Your task to perform on an android device: open chrome and create a bookmark for the current page Image 0: 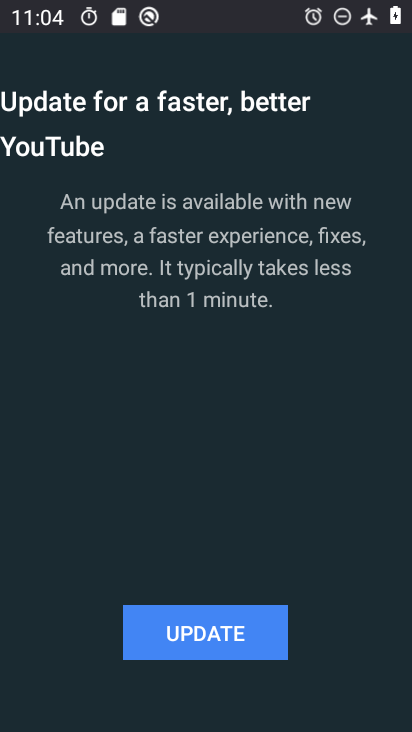
Step 0: press home button
Your task to perform on an android device: open chrome and create a bookmark for the current page Image 1: 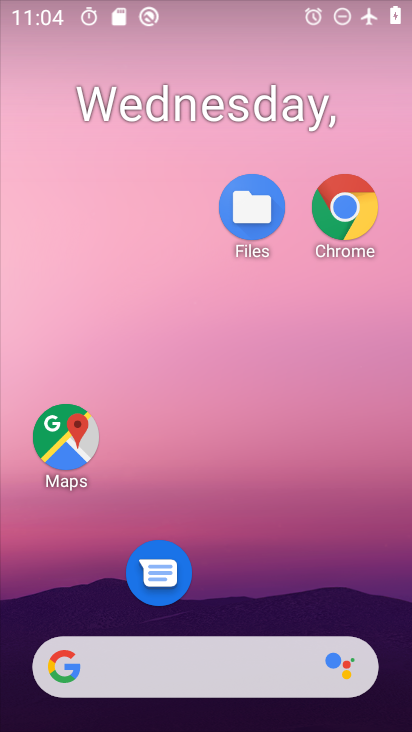
Step 1: drag from (241, 697) to (340, 204)
Your task to perform on an android device: open chrome and create a bookmark for the current page Image 2: 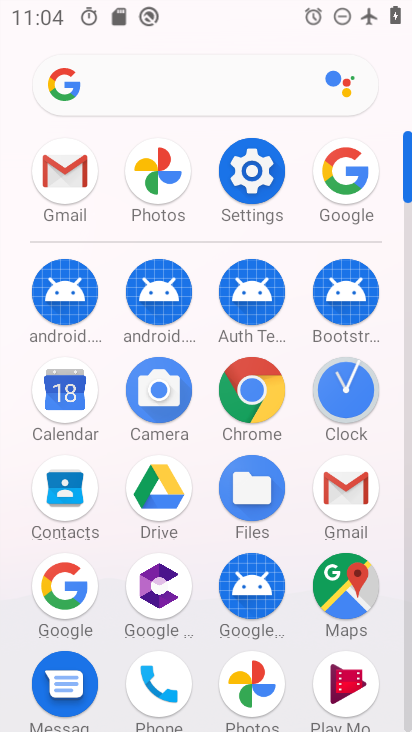
Step 2: click (265, 410)
Your task to perform on an android device: open chrome and create a bookmark for the current page Image 3: 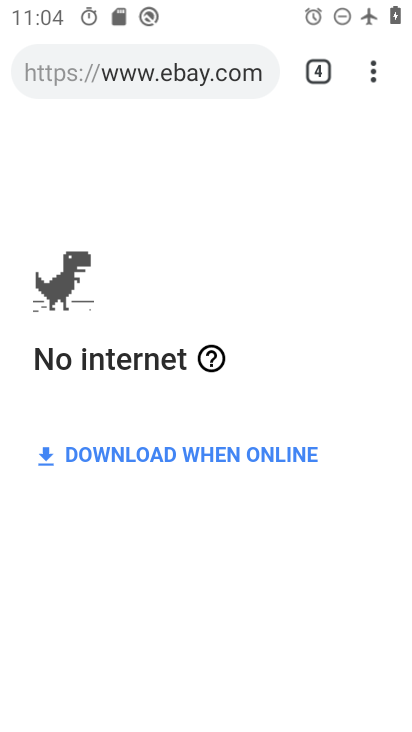
Step 3: click (316, 82)
Your task to perform on an android device: open chrome and create a bookmark for the current page Image 4: 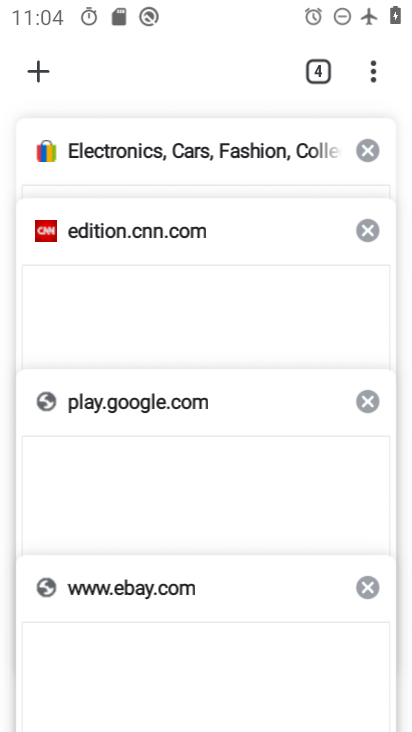
Step 4: click (178, 642)
Your task to perform on an android device: open chrome and create a bookmark for the current page Image 5: 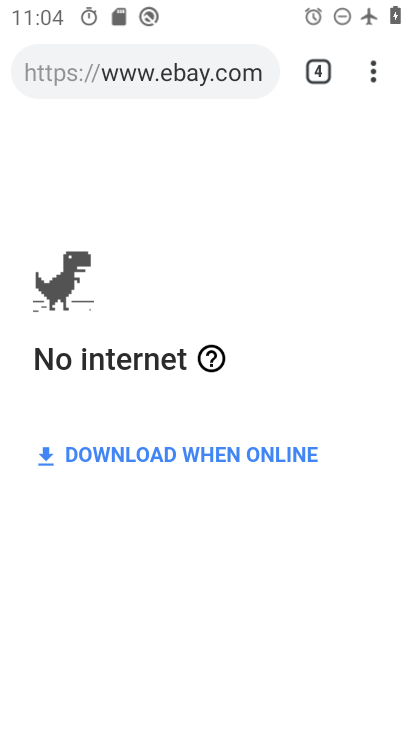
Step 5: click (377, 65)
Your task to perform on an android device: open chrome and create a bookmark for the current page Image 6: 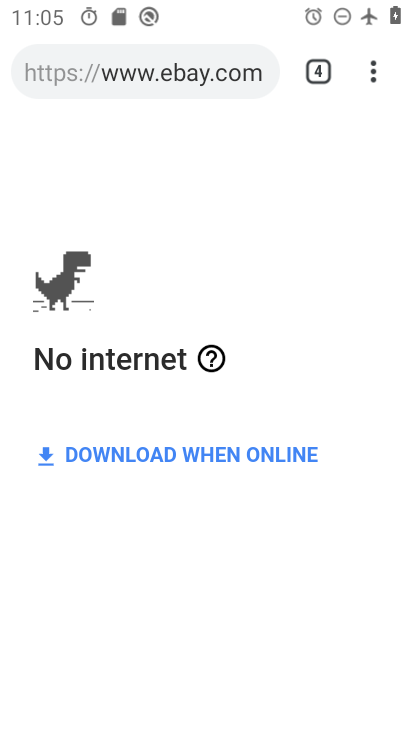
Step 6: click (363, 82)
Your task to perform on an android device: open chrome and create a bookmark for the current page Image 7: 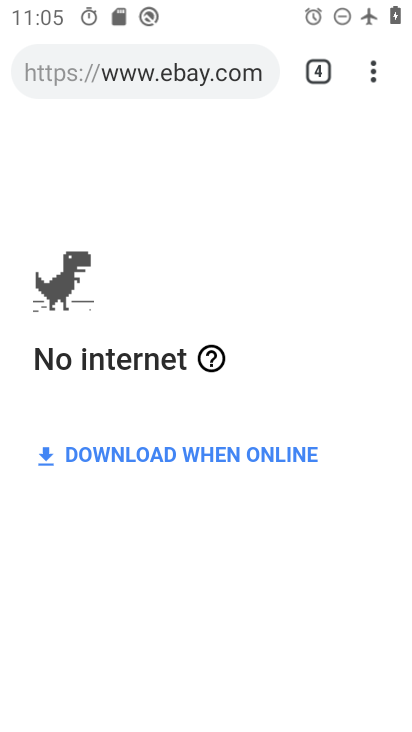
Step 7: click (381, 77)
Your task to perform on an android device: open chrome and create a bookmark for the current page Image 8: 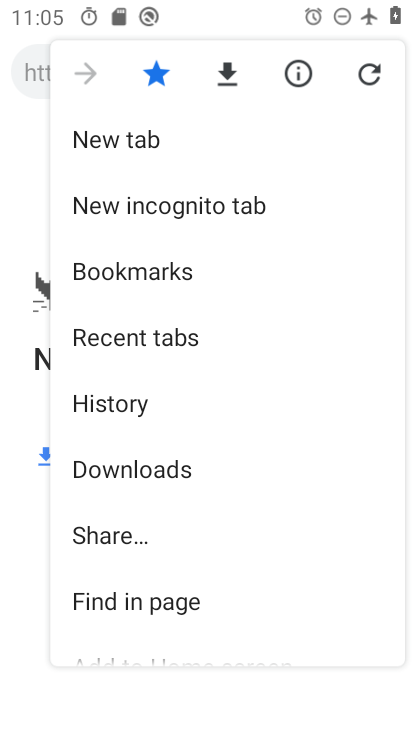
Step 8: task complete